Your task to perform on an android device: change keyboard looks Image 0: 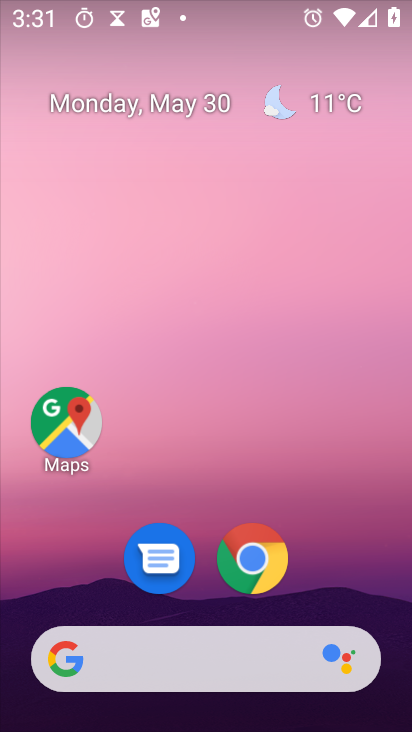
Step 0: drag from (203, 486) to (262, 142)
Your task to perform on an android device: change keyboard looks Image 1: 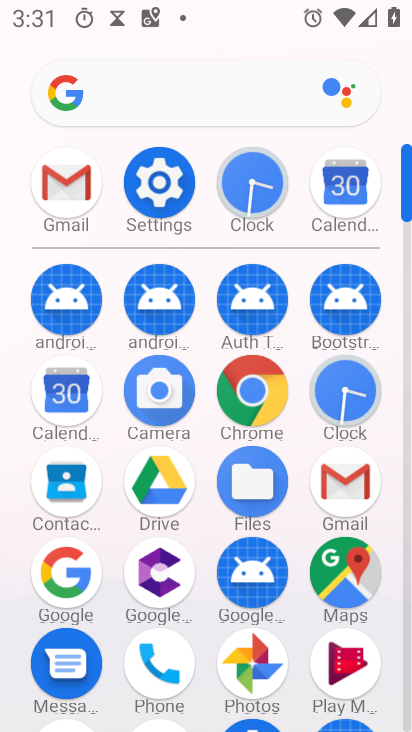
Step 1: click (157, 181)
Your task to perform on an android device: change keyboard looks Image 2: 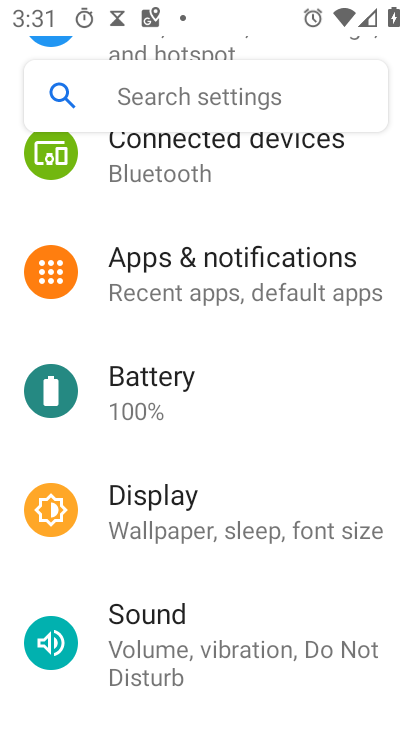
Step 2: drag from (188, 646) to (341, 106)
Your task to perform on an android device: change keyboard looks Image 3: 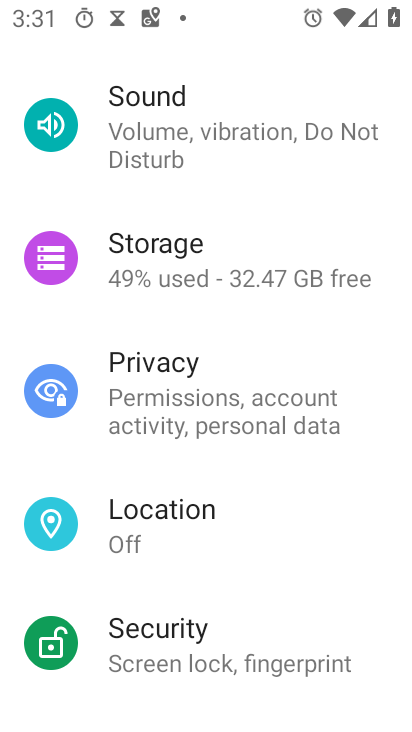
Step 3: drag from (210, 626) to (357, 0)
Your task to perform on an android device: change keyboard looks Image 4: 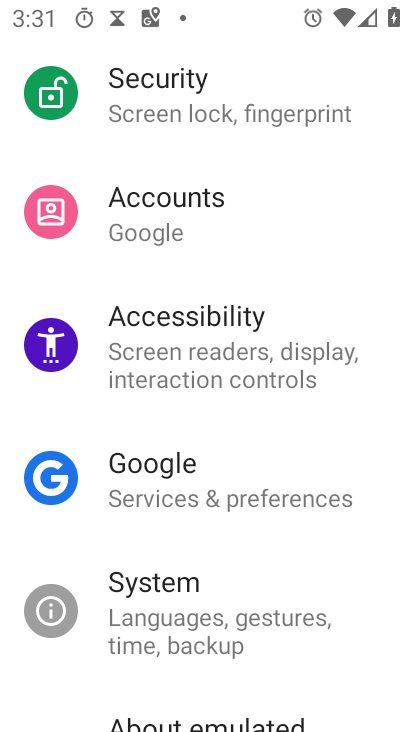
Step 4: click (173, 615)
Your task to perform on an android device: change keyboard looks Image 5: 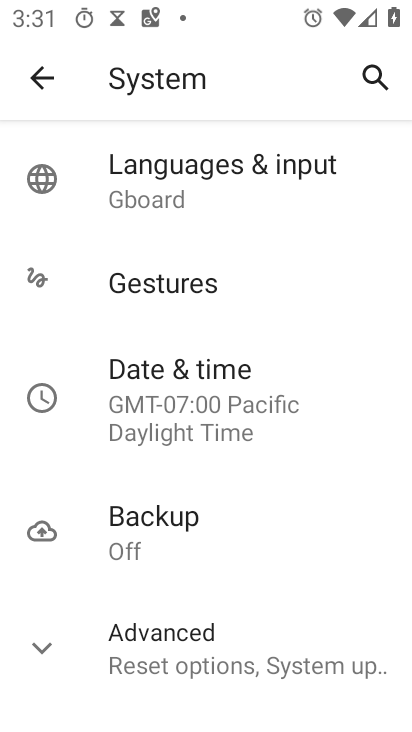
Step 5: click (194, 171)
Your task to perform on an android device: change keyboard looks Image 6: 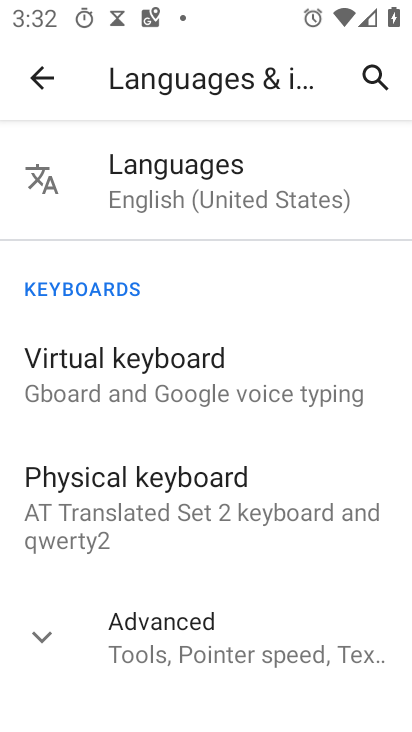
Step 6: click (149, 387)
Your task to perform on an android device: change keyboard looks Image 7: 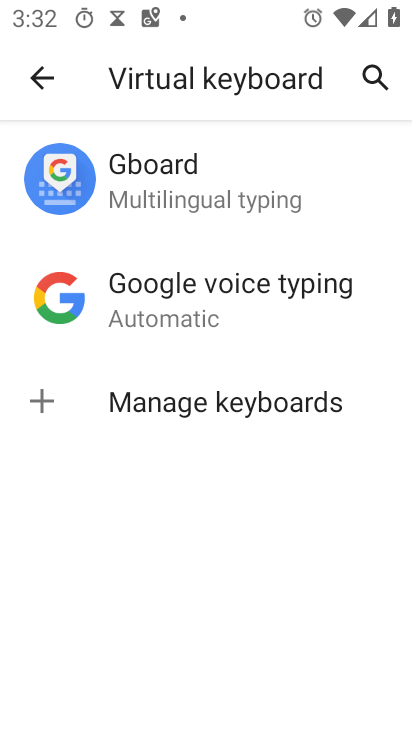
Step 7: click (197, 171)
Your task to perform on an android device: change keyboard looks Image 8: 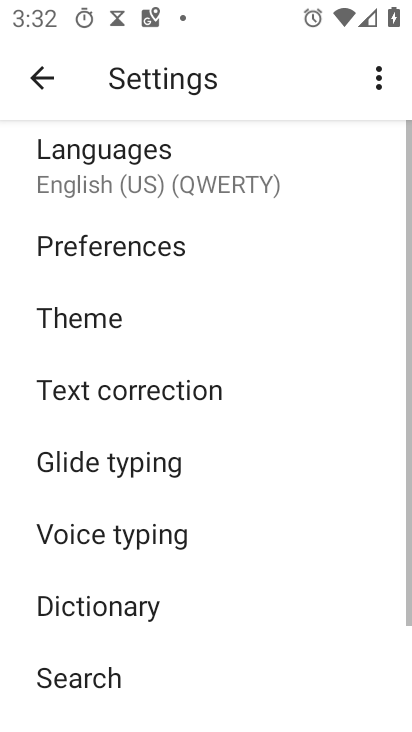
Step 8: drag from (70, 302) to (28, 300)
Your task to perform on an android device: change keyboard looks Image 9: 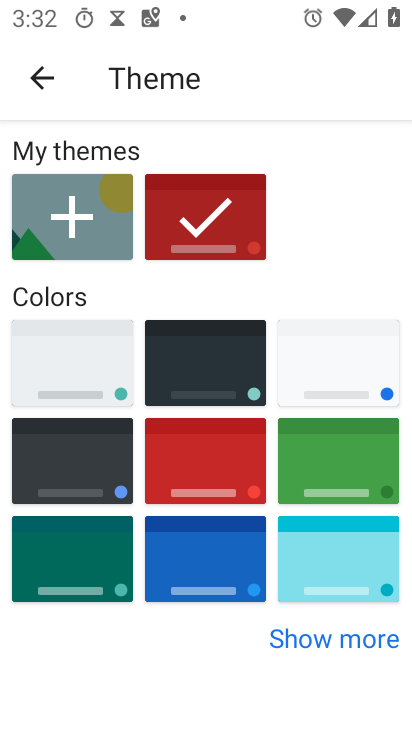
Step 9: click (318, 464)
Your task to perform on an android device: change keyboard looks Image 10: 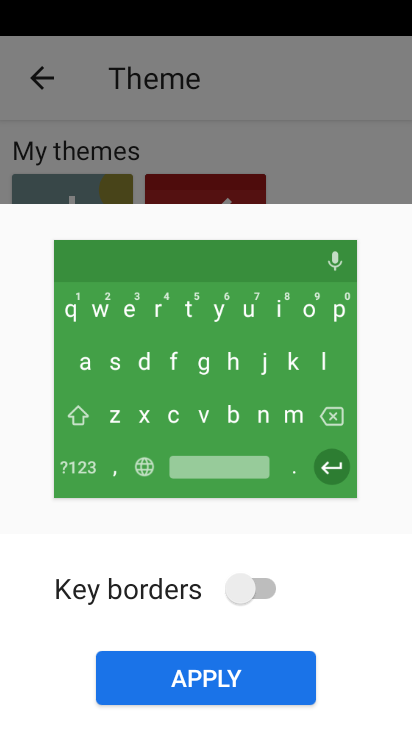
Step 10: click (223, 659)
Your task to perform on an android device: change keyboard looks Image 11: 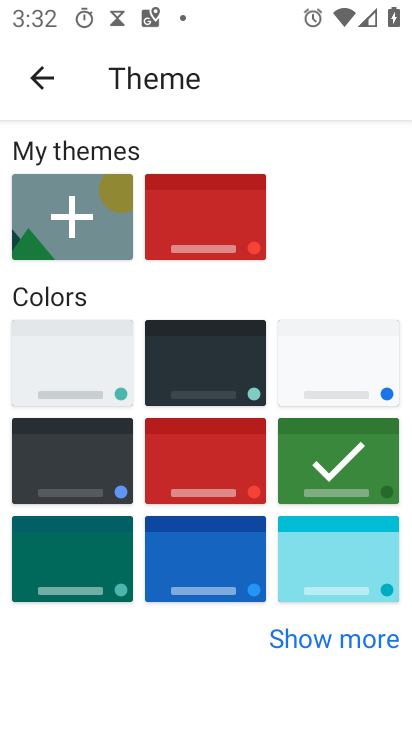
Step 11: task complete